Your task to perform on an android device: make emails show in primary in the gmail app Image 0: 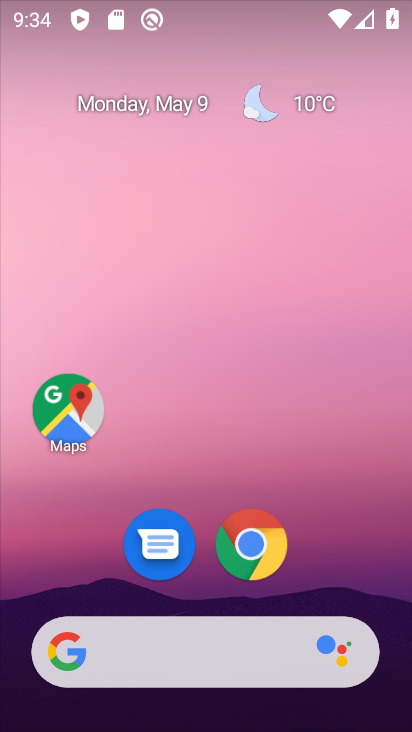
Step 0: drag from (403, 600) to (341, 196)
Your task to perform on an android device: make emails show in primary in the gmail app Image 1: 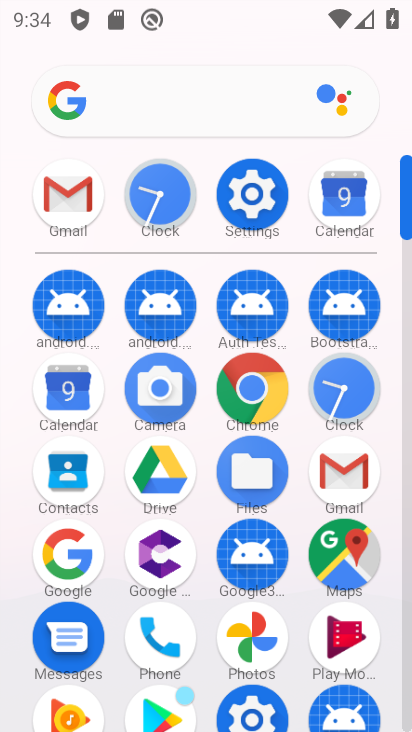
Step 1: click (333, 462)
Your task to perform on an android device: make emails show in primary in the gmail app Image 2: 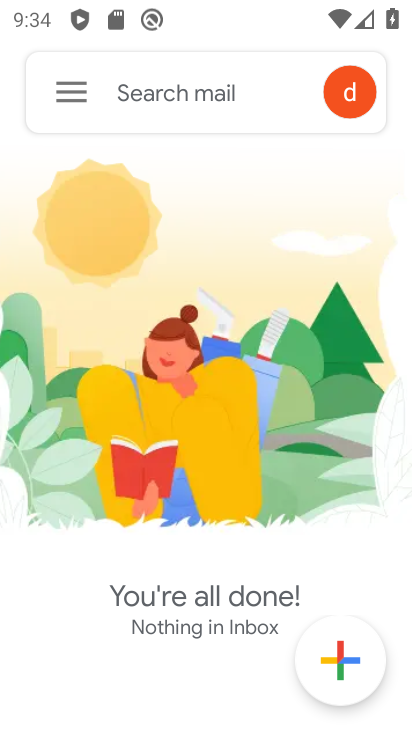
Step 2: click (68, 88)
Your task to perform on an android device: make emails show in primary in the gmail app Image 3: 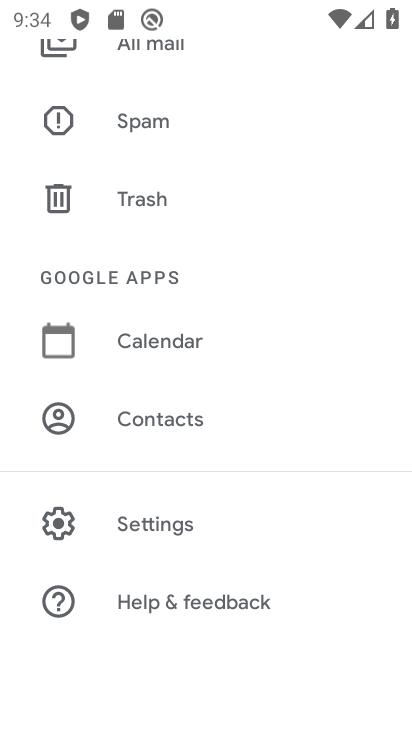
Step 3: click (170, 521)
Your task to perform on an android device: make emails show in primary in the gmail app Image 4: 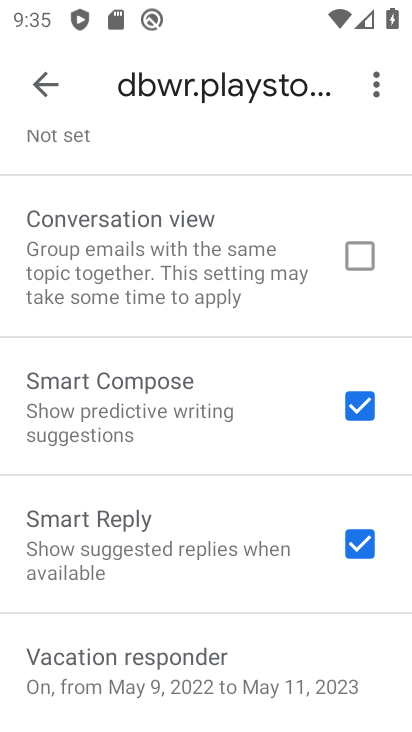
Step 4: drag from (275, 255) to (319, 641)
Your task to perform on an android device: make emails show in primary in the gmail app Image 5: 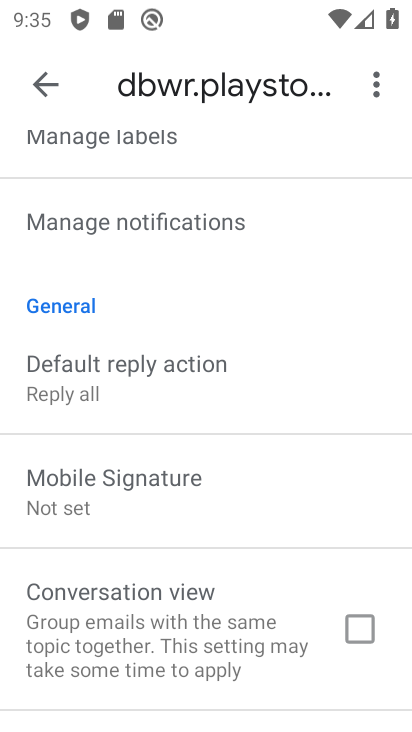
Step 5: drag from (275, 235) to (284, 609)
Your task to perform on an android device: make emails show in primary in the gmail app Image 6: 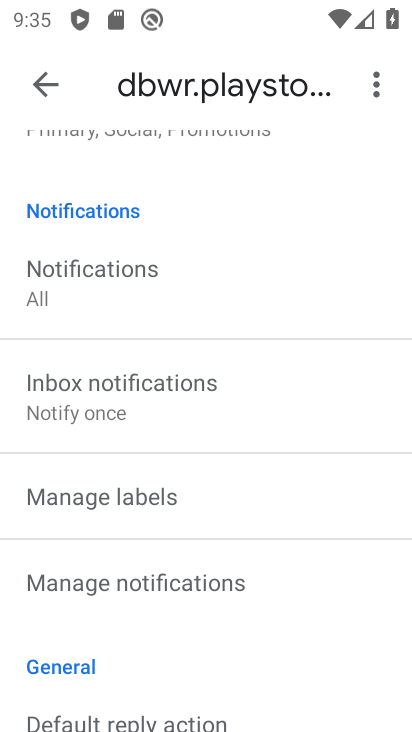
Step 6: drag from (305, 261) to (327, 603)
Your task to perform on an android device: make emails show in primary in the gmail app Image 7: 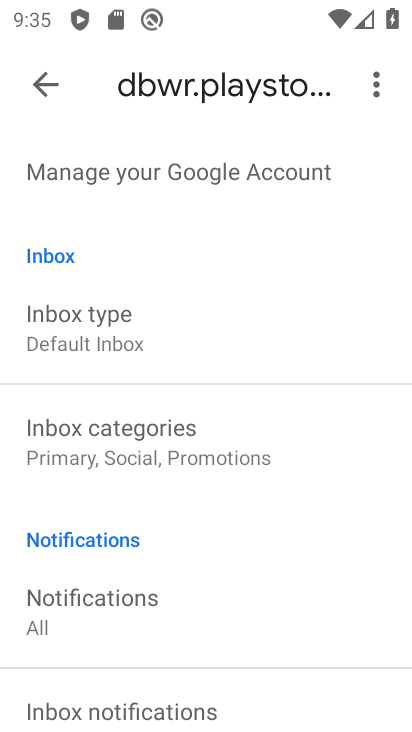
Step 7: click (70, 334)
Your task to perform on an android device: make emails show in primary in the gmail app Image 8: 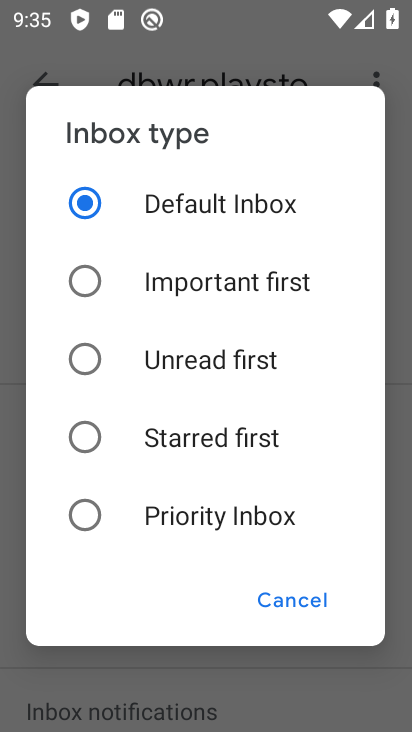
Step 8: click (311, 602)
Your task to perform on an android device: make emails show in primary in the gmail app Image 9: 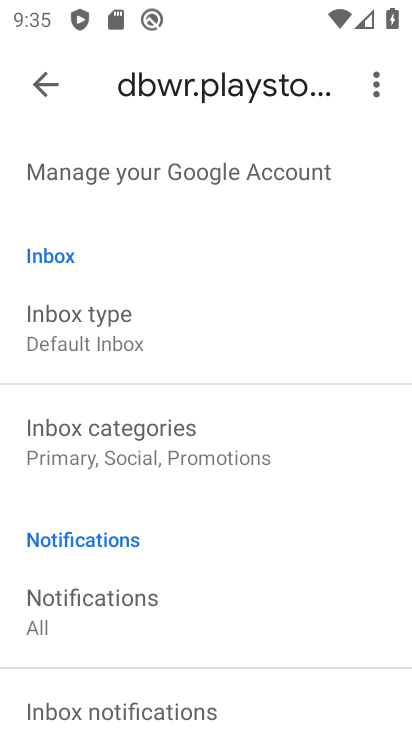
Step 9: click (135, 436)
Your task to perform on an android device: make emails show in primary in the gmail app Image 10: 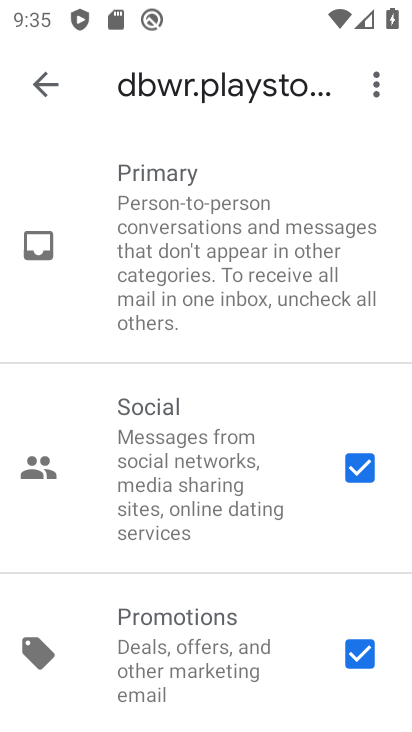
Step 10: click (360, 467)
Your task to perform on an android device: make emails show in primary in the gmail app Image 11: 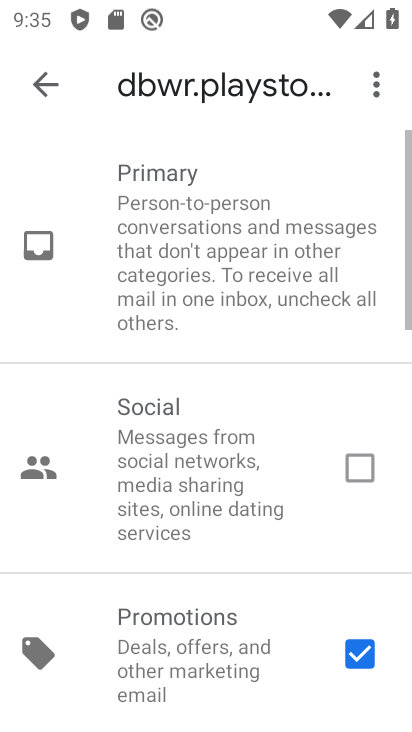
Step 11: click (365, 650)
Your task to perform on an android device: make emails show in primary in the gmail app Image 12: 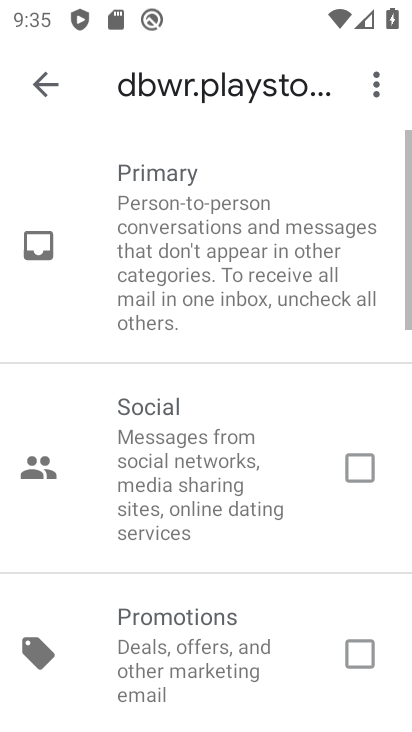
Step 12: drag from (283, 669) to (303, 334)
Your task to perform on an android device: make emails show in primary in the gmail app Image 13: 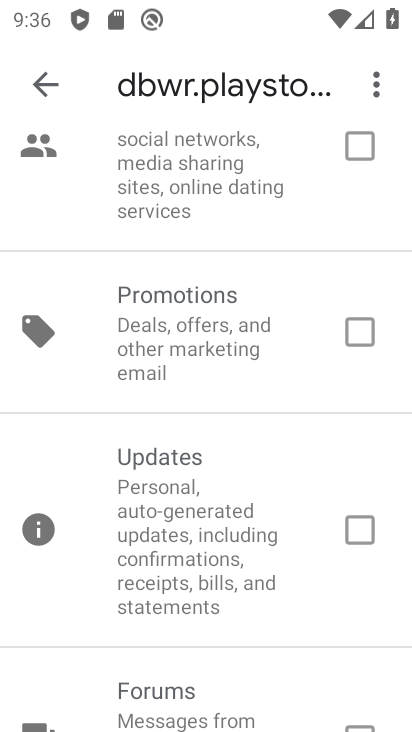
Step 13: drag from (279, 616) to (259, 366)
Your task to perform on an android device: make emails show in primary in the gmail app Image 14: 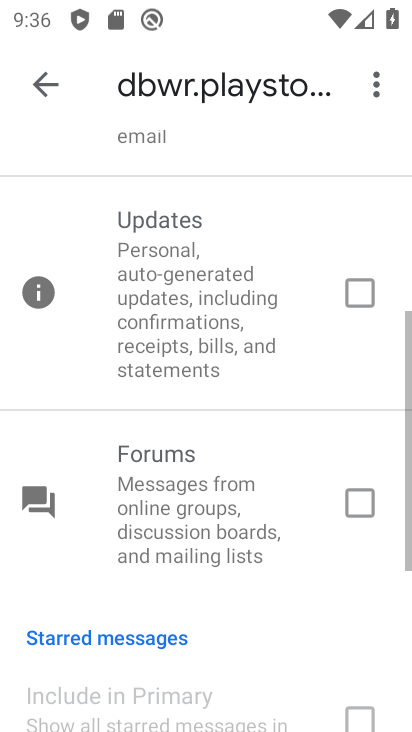
Step 14: click (51, 86)
Your task to perform on an android device: make emails show in primary in the gmail app Image 15: 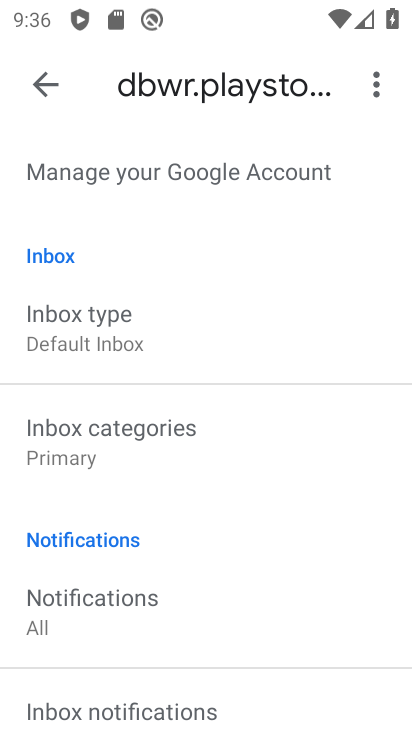
Step 15: task complete